Your task to perform on an android device: Add bose soundlink mini to the cart on walmart.com, then select checkout. Image 0: 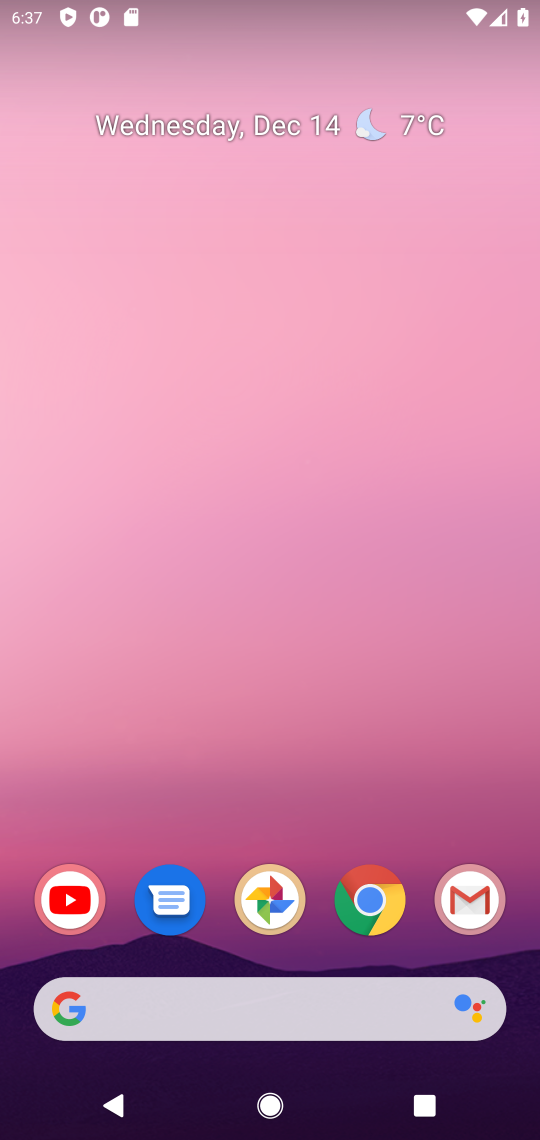
Step 0: click (202, 995)
Your task to perform on an android device: Add bose soundlink mini to the cart on walmart.com, then select checkout. Image 1: 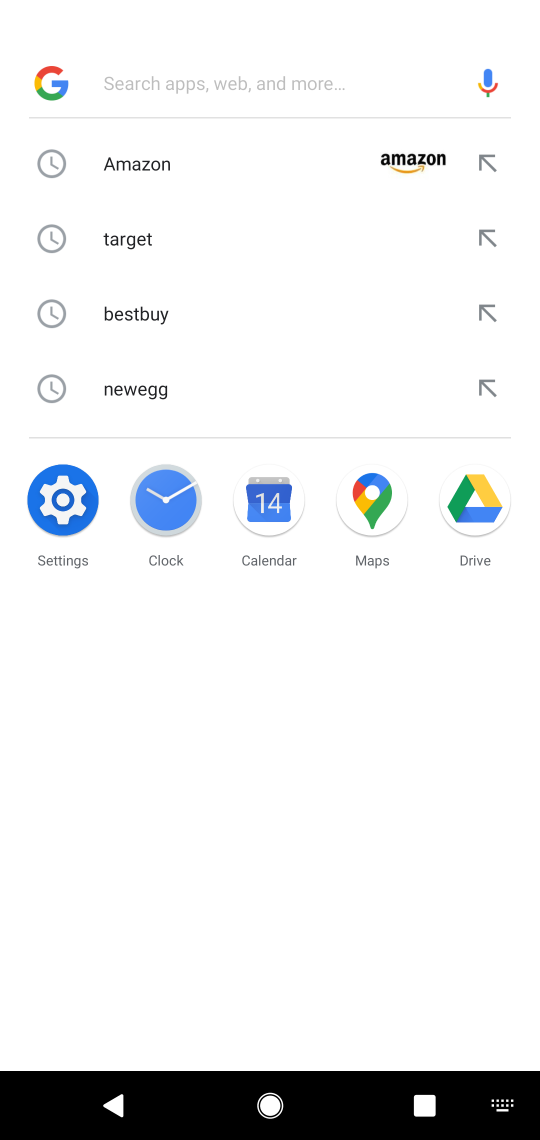
Step 1: type "walmart.com"
Your task to perform on an android device: Add bose soundlink mini to the cart on walmart.com, then select checkout. Image 2: 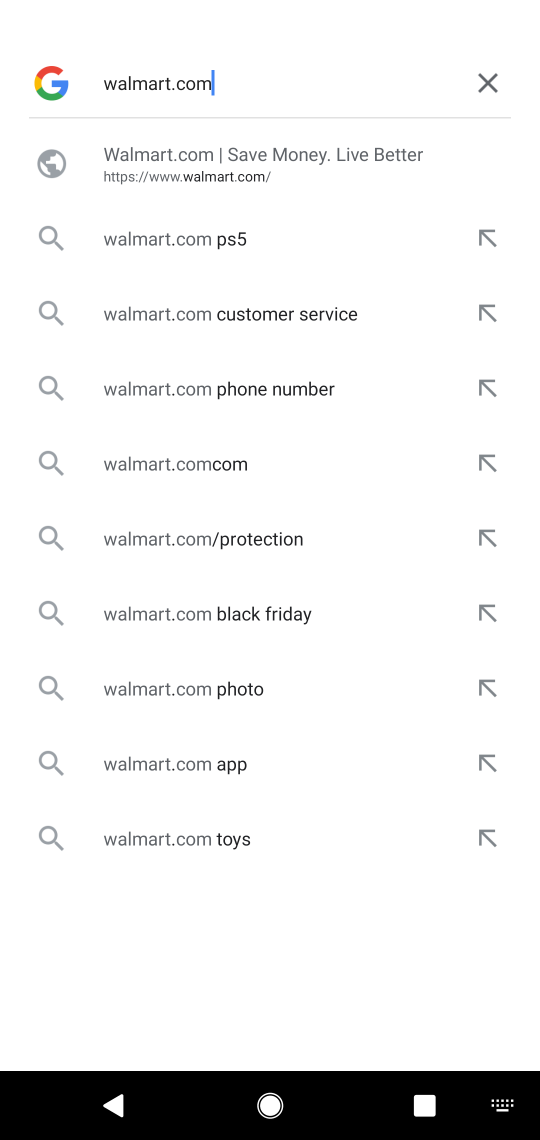
Step 2: click (251, 163)
Your task to perform on an android device: Add bose soundlink mini to the cart on walmart.com, then select checkout. Image 3: 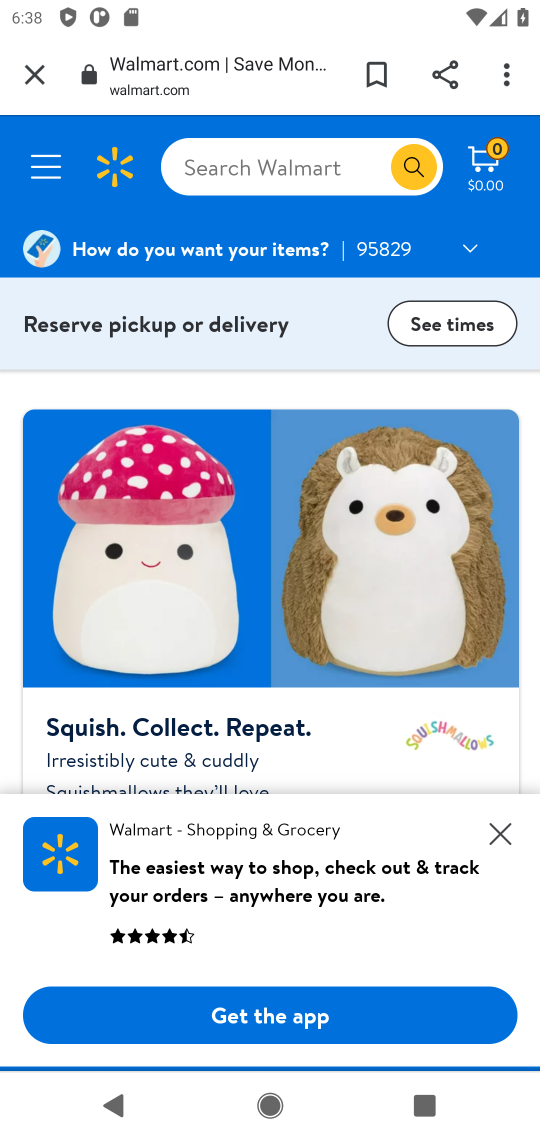
Step 3: click (281, 166)
Your task to perform on an android device: Add bose soundlink mini to the cart on walmart.com, then select checkout. Image 4: 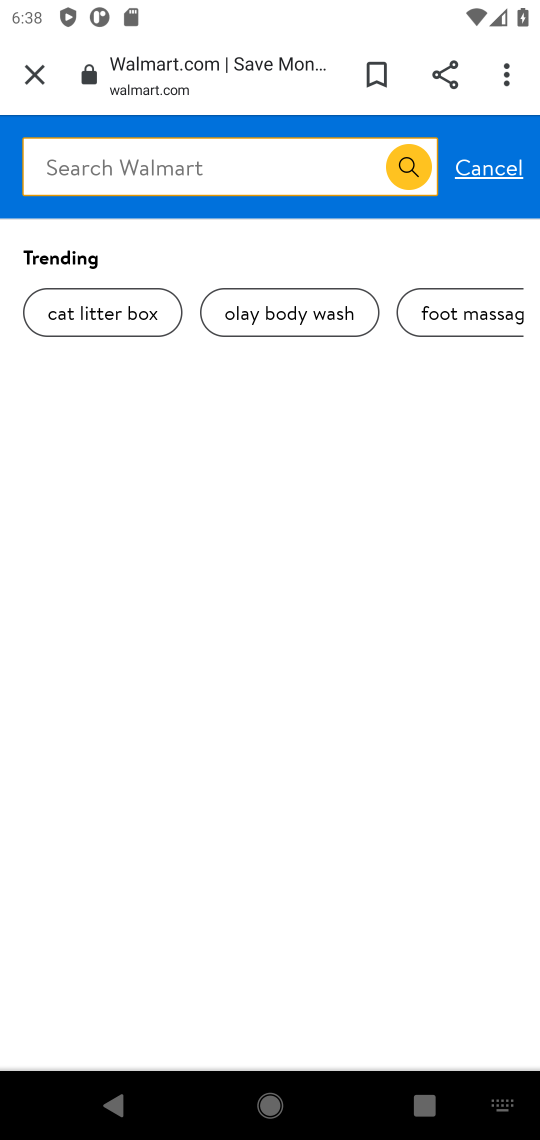
Step 4: type "bose soundlink mini "
Your task to perform on an android device: Add bose soundlink mini to the cart on walmart.com, then select checkout. Image 5: 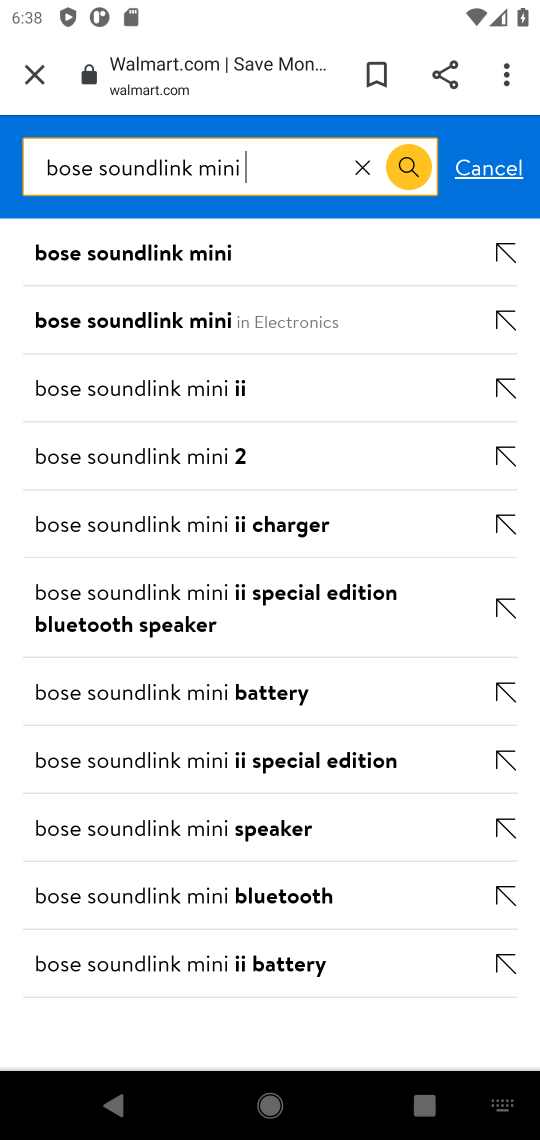
Step 5: click (214, 252)
Your task to perform on an android device: Add bose soundlink mini to the cart on walmart.com, then select checkout. Image 6: 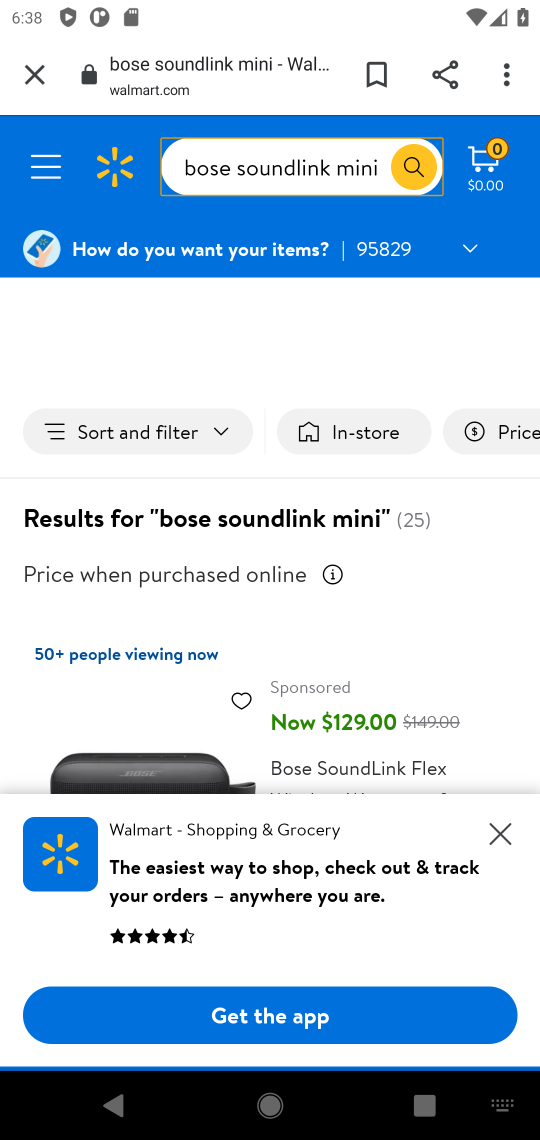
Step 6: click (498, 834)
Your task to perform on an android device: Add bose soundlink mini to the cart on walmart.com, then select checkout. Image 7: 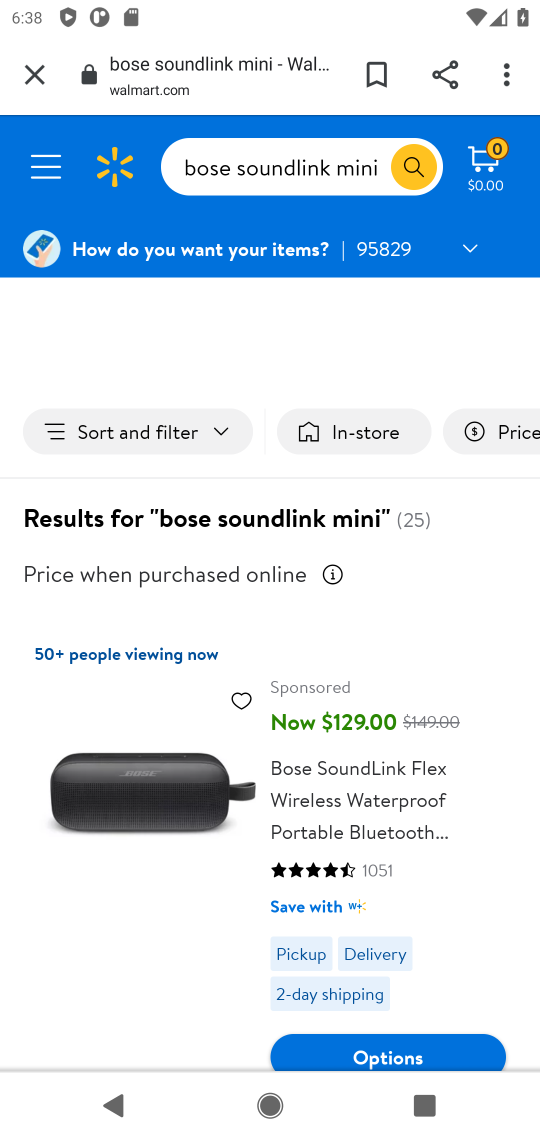
Step 7: drag from (491, 817) to (451, 558)
Your task to perform on an android device: Add bose soundlink mini to the cart on walmart.com, then select checkout. Image 8: 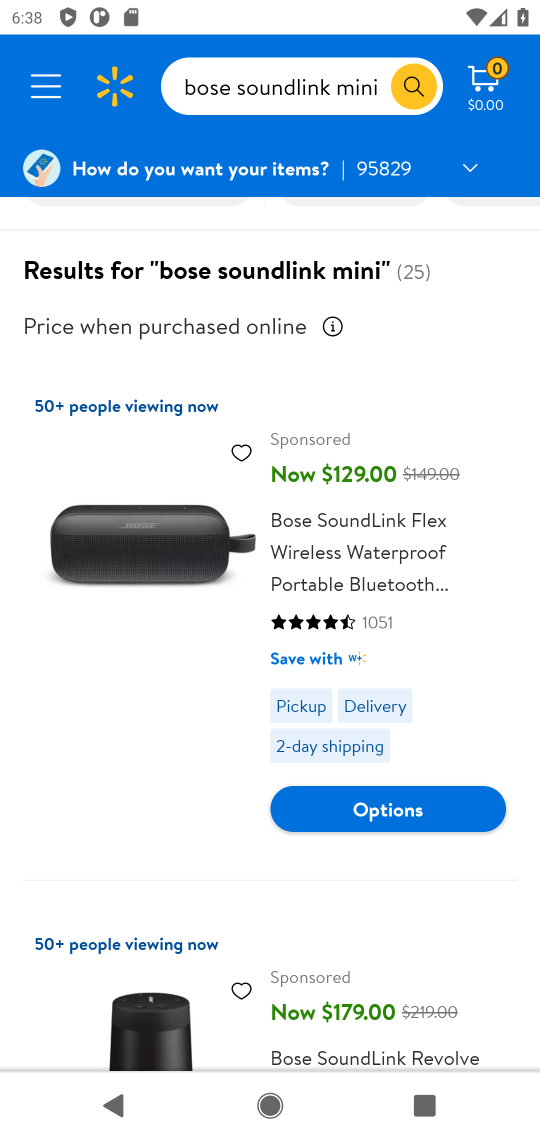
Step 8: click (392, 802)
Your task to perform on an android device: Add bose soundlink mini to the cart on walmart.com, then select checkout. Image 9: 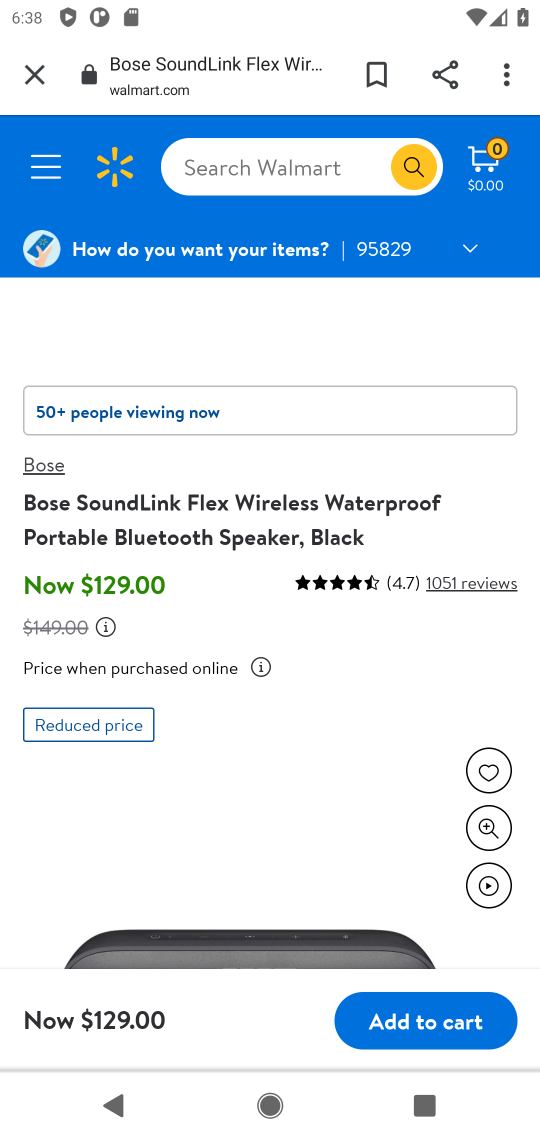
Step 9: drag from (388, 714) to (314, 64)
Your task to perform on an android device: Add bose soundlink mini to the cart on walmart.com, then select checkout. Image 10: 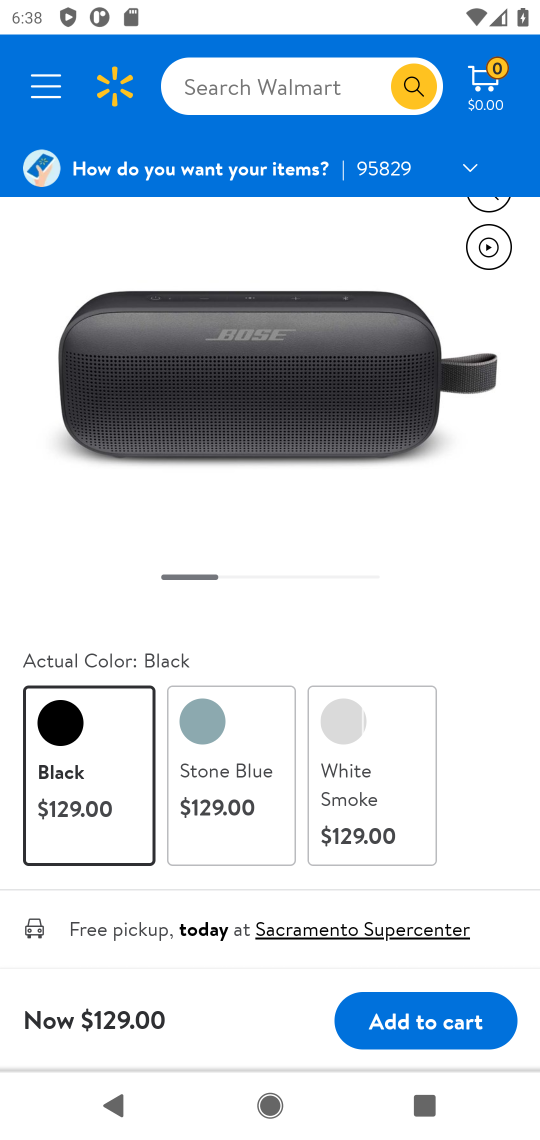
Step 10: click (421, 1014)
Your task to perform on an android device: Add bose soundlink mini to the cart on walmart.com, then select checkout. Image 11: 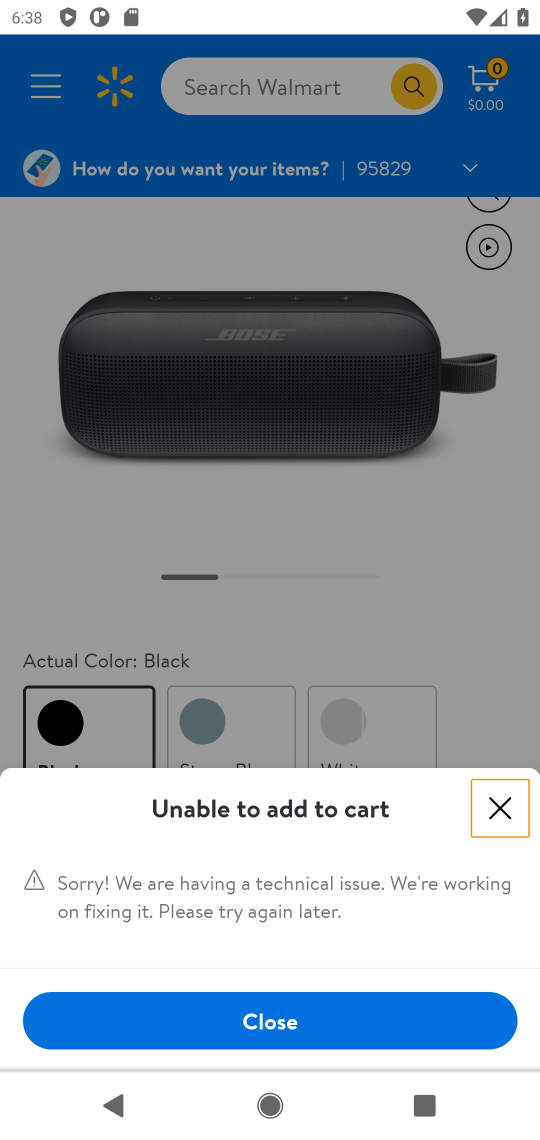
Step 11: task complete